Your task to perform on an android device: Search for the best gaming mouse on Best Buy. Image 0: 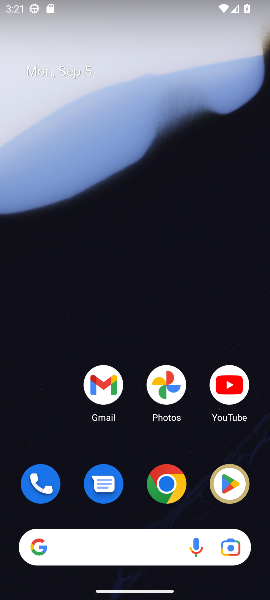
Step 0: click (167, 477)
Your task to perform on an android device: Search for the best gaming mouse on Best Buy. Image 1: 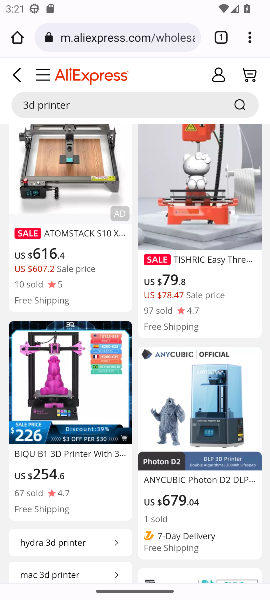
Step 1: click (150, 35)
Your task to perform on an android device: Search for the best gaming mouse on Best Buy. Image 2: 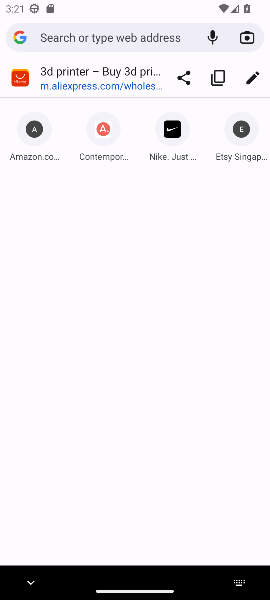
Step 2: type "Best Buy"
Your task to perform on an android device: Search for the best gaming mouse on Best Buy. Image 3: 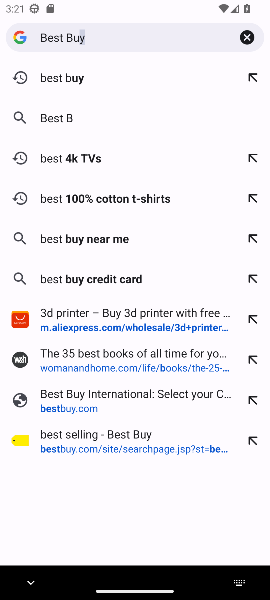
Step 3: press enter
Your task to perform on an android device: Search for the best gaming mouse on Best Buy. Image 4: 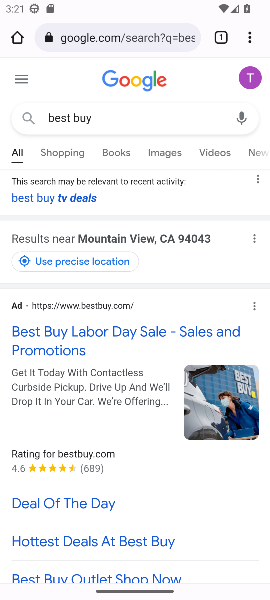
Step 4: drag from (95, 491) to (243, 182)
Your task to perform on an android device: Search for the best gaming mouse on Best Buy. Image 5: 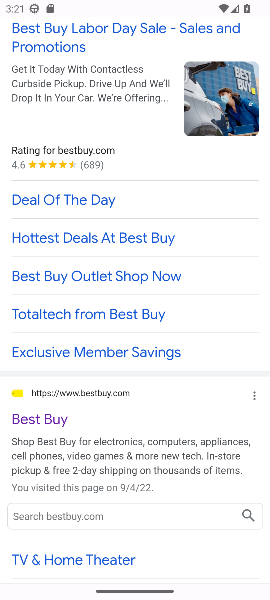
Step 5: click (52, 415)
Your task to perform on an android device: Search for the best gaming mouse on Best Buy. Image 6: 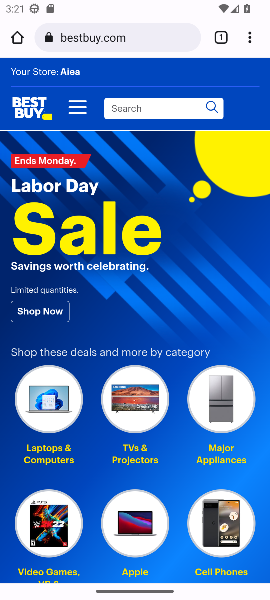
Step 6: click (171, 102)
Your task to perform on an android device: Search for the best gaming mouse on Best Buy. Image 7: 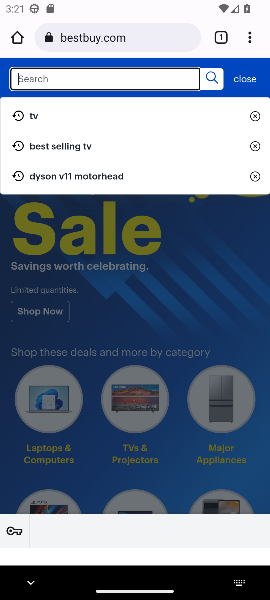
Step 7: type "gaming mouse"
Your task to perform on an android device: Search for the best gaming mouse on Best Buy. Image 8: 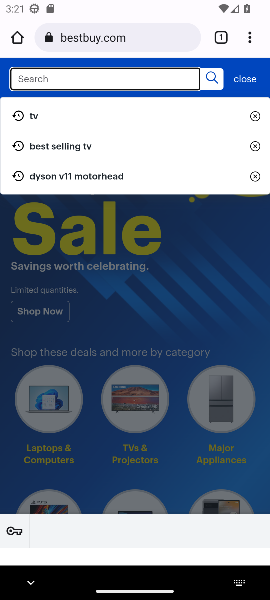
Step 8: press enter
Your task to perform on an android device: Search for the best gaming mouse on Best Buy. Image 9: 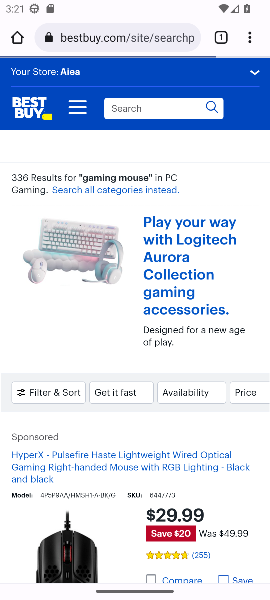
Step 9: task complete